Your task to perform on an android device: find snoozed emails in the gmail app Image 0: 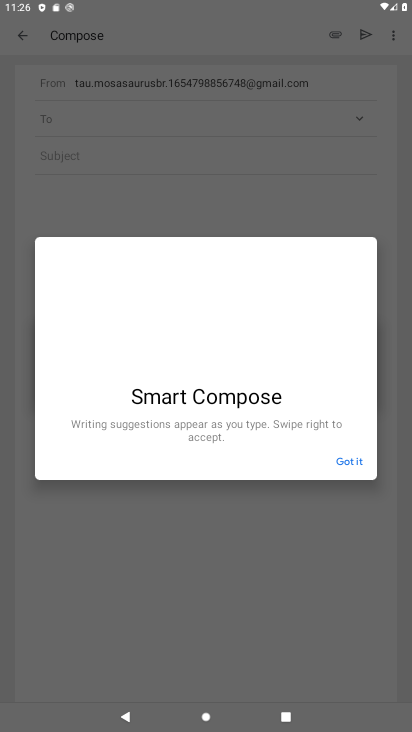
Step 0: press home button
Your task to perform on an android device: find snoozed emails in the gmail app Image 1: 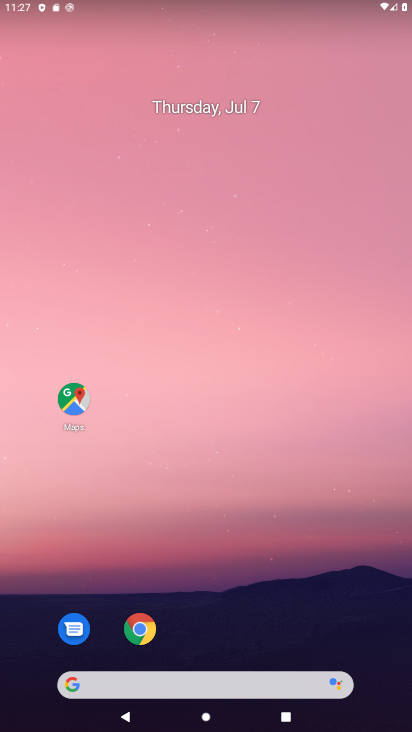
Step 1: drag from (322, 423) to (294, 147)
Your task to perform on an android device: find snoozed emails in the gmail app Image 2: 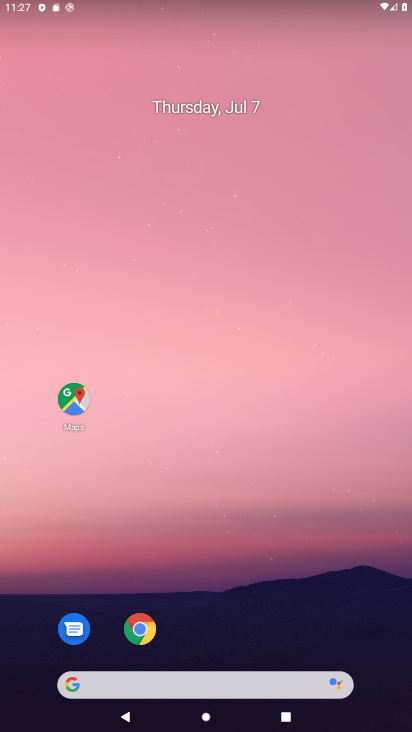
Step 2: drag from (362, 638) to (310, 208)
Your task to perform on an android device: find snoozed emails in the gmail app Image 3: 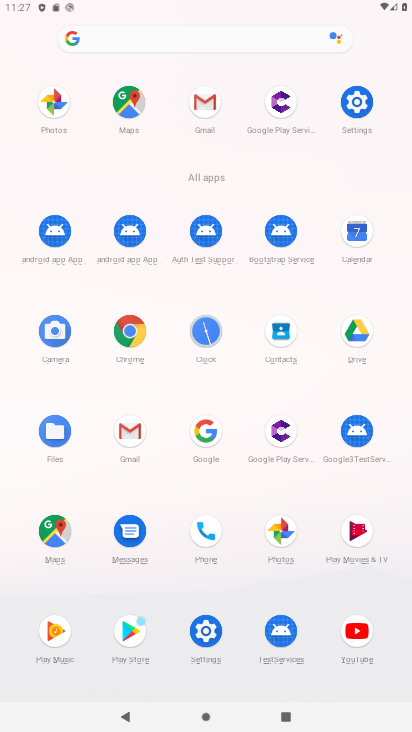
Step 3: click (130, 432)
Your task to perform on an android device: find snoozed emails in the gmail app Image 4: 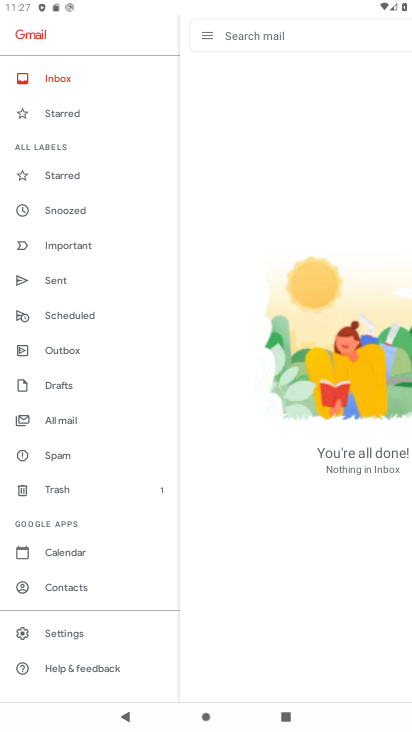
Step 4: click (62, 209)
Your task to perform on an android device: find snoozed emails in the gmail app Image 5: 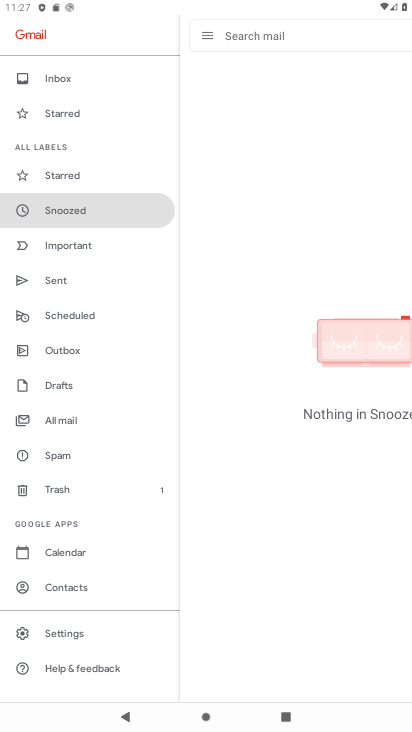
Step 5: task complete